Your task to perform on an android device: Open Google Chrome and open the bookmarks view Image 0: 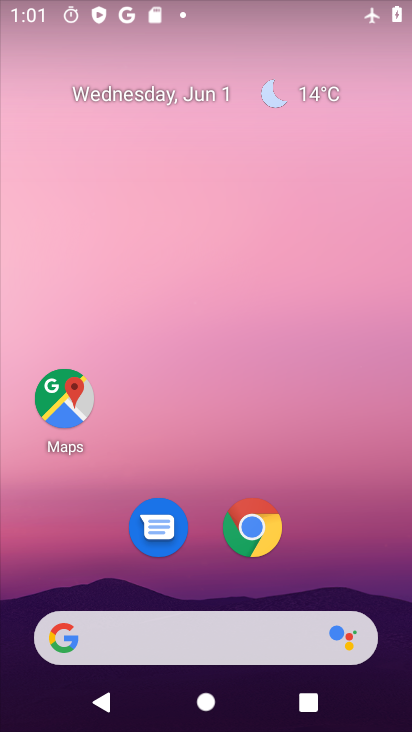
Step 0: drag from (209, 600) to (283, 201)
Your task to perform on an android device: Open Google Chrome and open the bookmarks view Image 1: 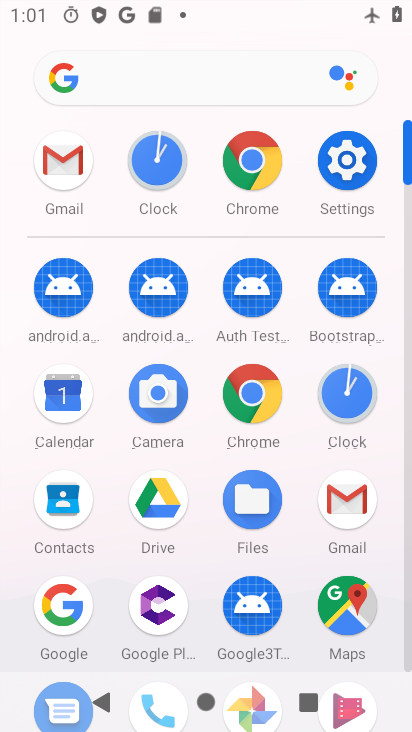
Step 1: click (262, 396)
Your task to perform on an android device: Open Google Chrome and open the bookmarks view Image 2: 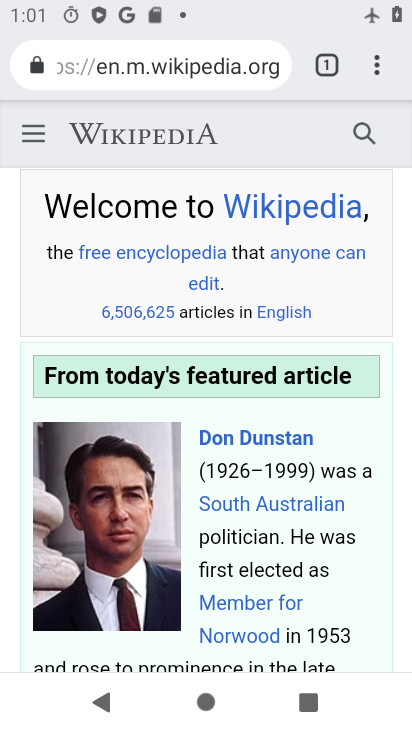
Step 2: click (383, 70)
Your task to perform on an android device: Open Google Chrome and open the bookmarks view Image 3: 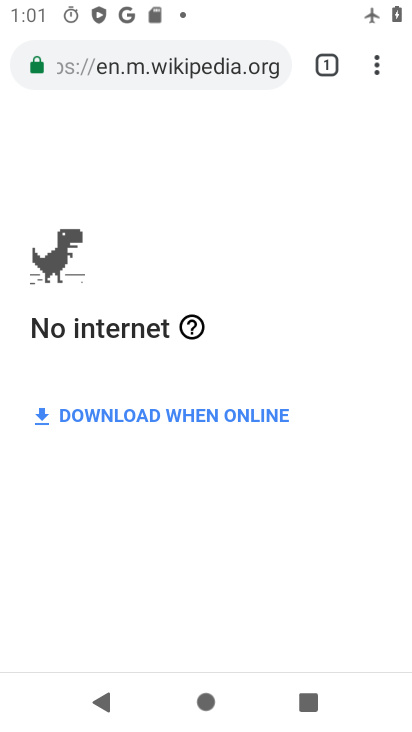
Step 3: click (377, 77)
Your task to perform on an android device: Open Google Chrome and open the bookmarks view Image 4: 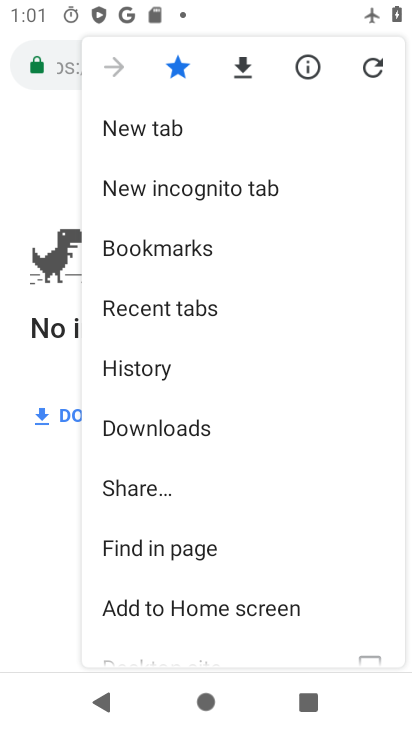
Step 4: click (195, 255)
Your task to perform on an android device: Open Google Chrome and open the bookmarks view Image 5: 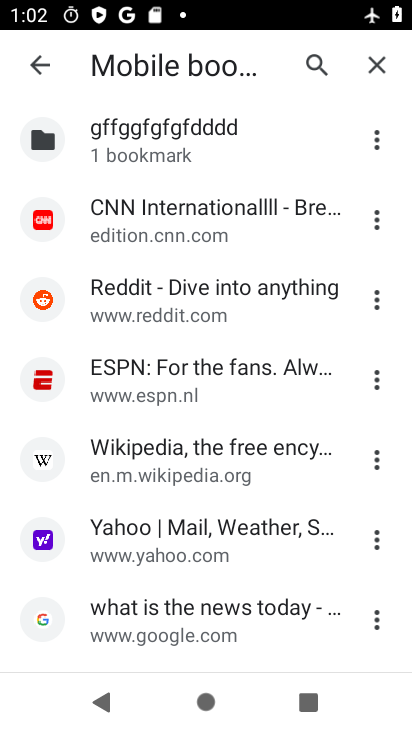
Step 5: task complete